Your task to perform on an android device: Show me the alarms in the clock app Image 0: 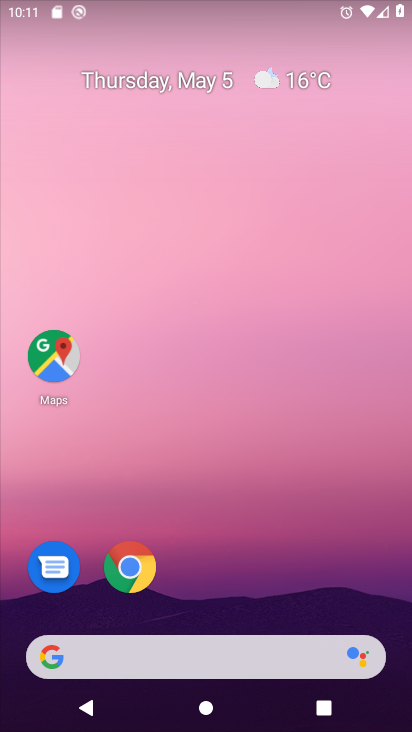
Step 0: drag from (251, 527) to (275, 9)
Your task to perform on an android device: Show me the alarms in the clock app Image 1: 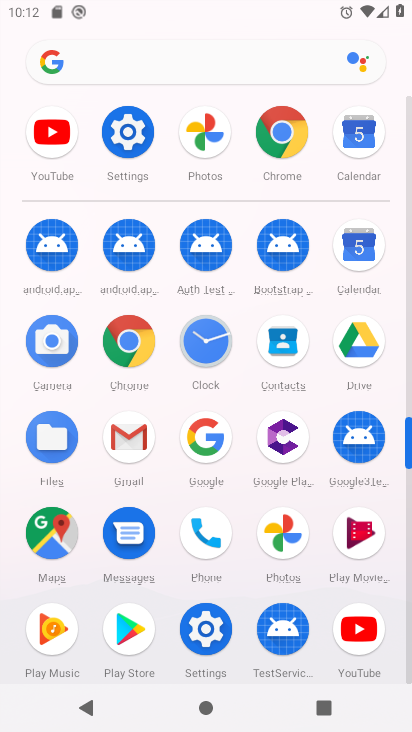
Step 1: click (206, 329)
Your task to perform on an android device: Show me the alarms in the clock app Image 2: 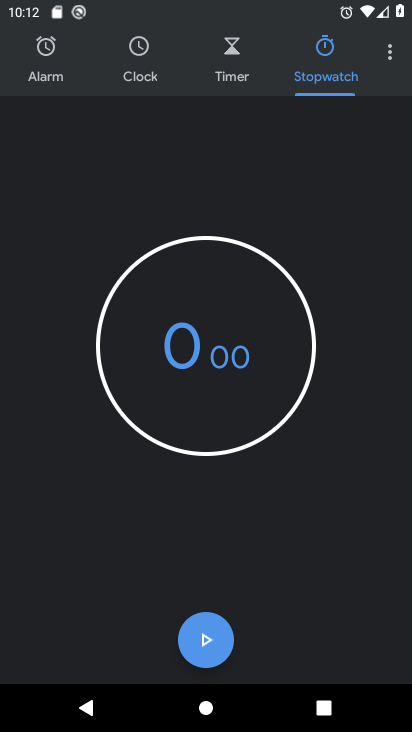
Step 2: click (46, 63)
Your task to perform on an android device: Show me the alarms in the clock app Image 3: 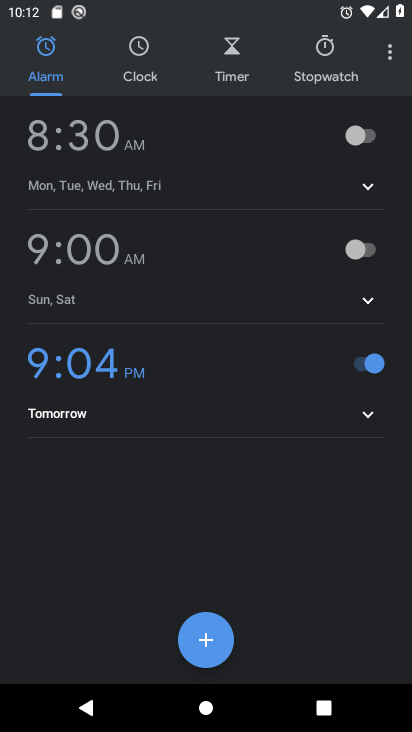
Step 3: task complete